Your task to perform on an android device: turn off translation in the chrome app Image 0: 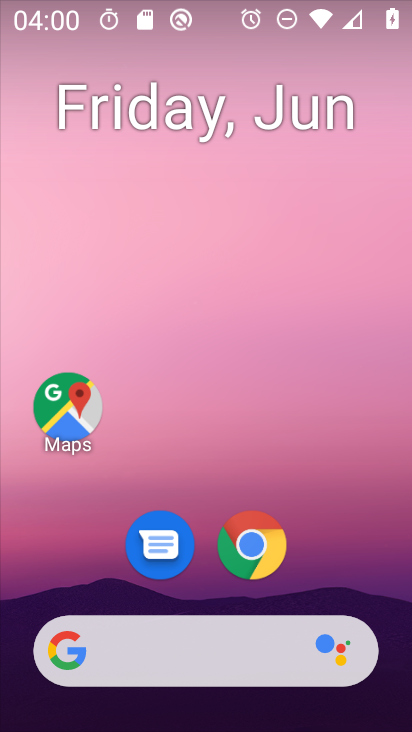
Step 0: click (257, 548)
Your task to perform on an android device: turn off translation in the chrome app Image 1: 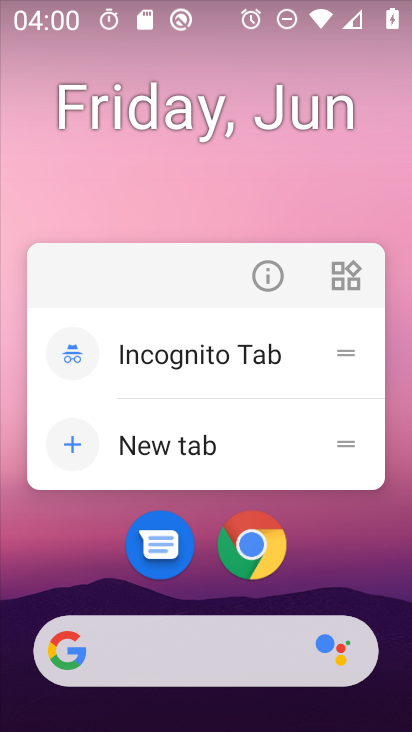
Step 1: click (255, 536)
Your task to perform on an android device: turn off translation in the chrome app Image 2: 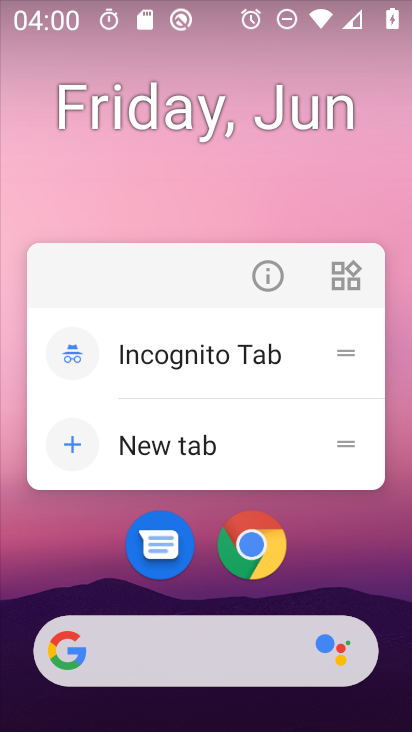
Step 2: click (260, 530)
Your task to perform on an android device: turn off translation in the chrome app Image 3: 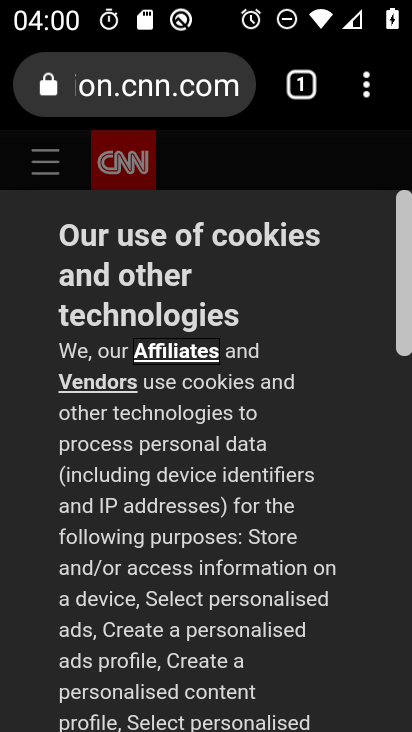
Step 3: click (378, 101)
Your task to perform on an android device: turn off translation in the chrome app Image 4: 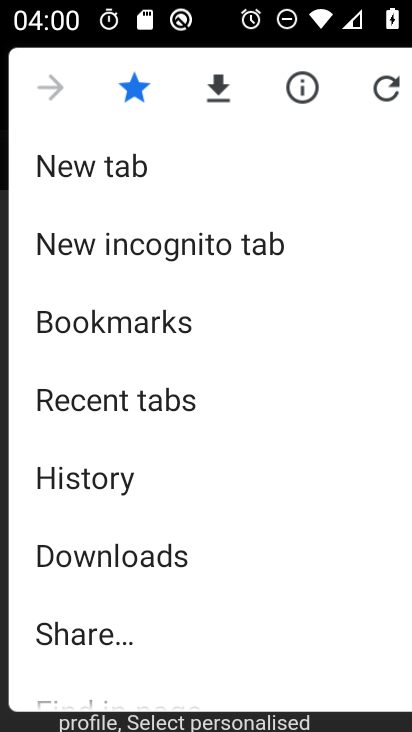
Step 4: drag from (194, 578) to (204, 197)
Your task to perform on an android device: turn off translation in the chrome app Image 5: 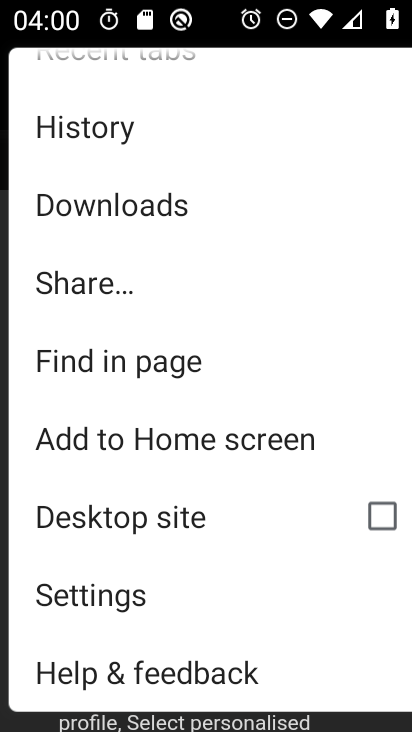
Step 5: click (226, 584)
Your task to perform on an android device: turn off translation in the chrome app Image 6: 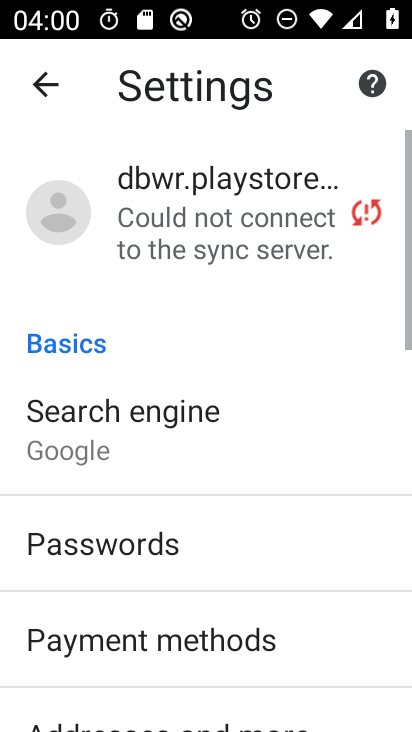
Step 6: drag from (235, 629) to (194, 171)
Your task to perform on an android device: turn off translation in the chrome app Image 7: 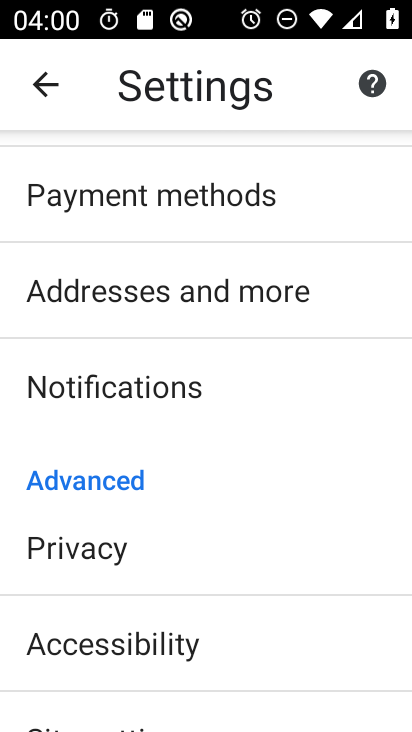
Step 7: drag from (213, 666) to (229, 221)
Your task to perform on an android device: turn off translation in the chrome app Image 8: 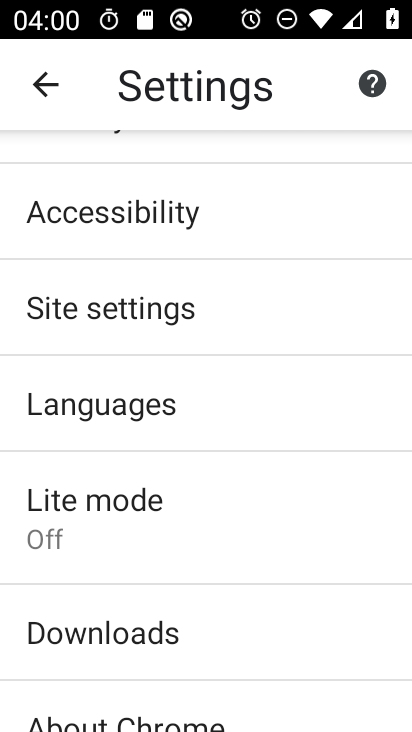
Step 8: click (165, 416)
Your task to perform on an android device: turn off translation in the chrome app Image 9: 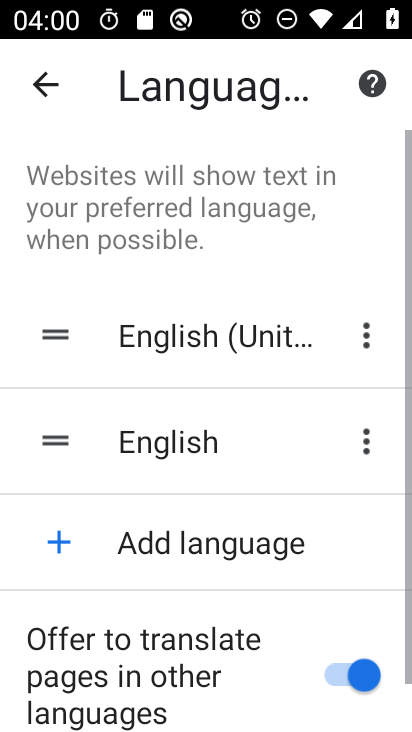
Step 9: click (329, 692)
Your task to perform on an android device: turn off translation in the chrome app Image 10: 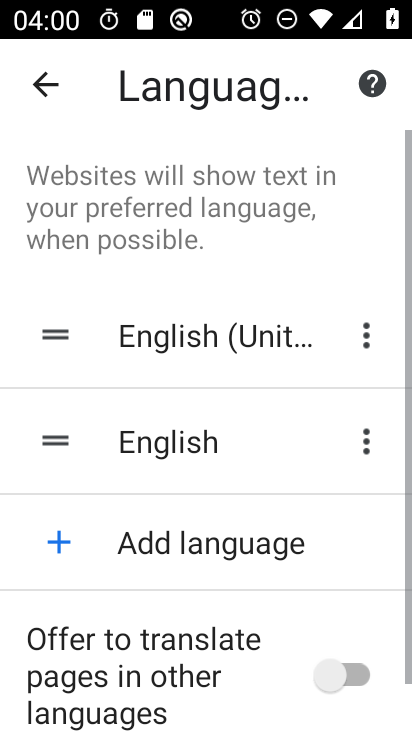
Step 10: task complete